Your task to perform on an android device: install app "Spotify: Music and Podcasts" Image 0: 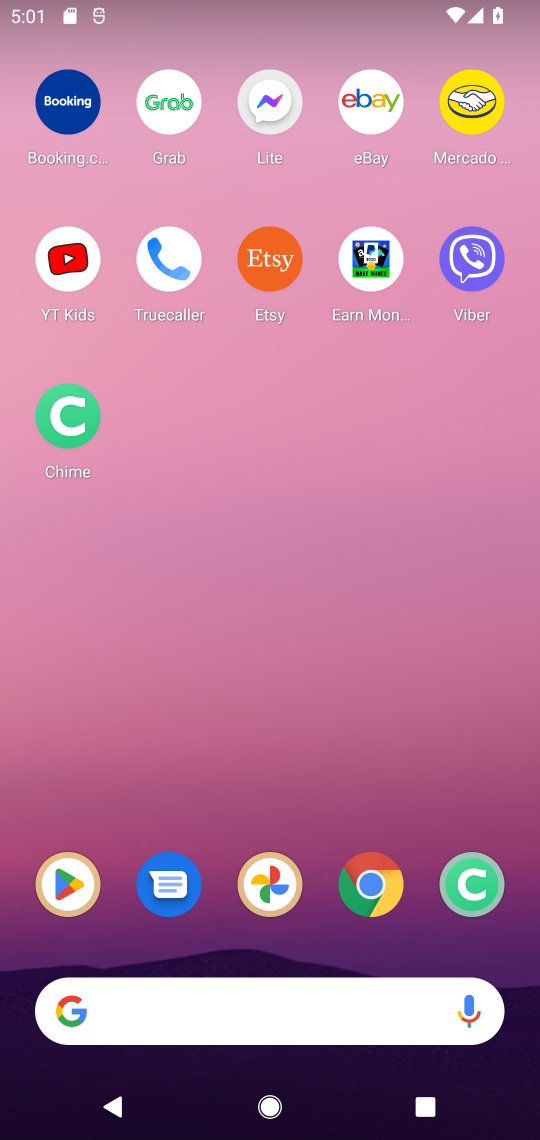
Step 0: press home button
Your task to perform on an android device: install app "Spotify: Music and Podcasts" Image 1: 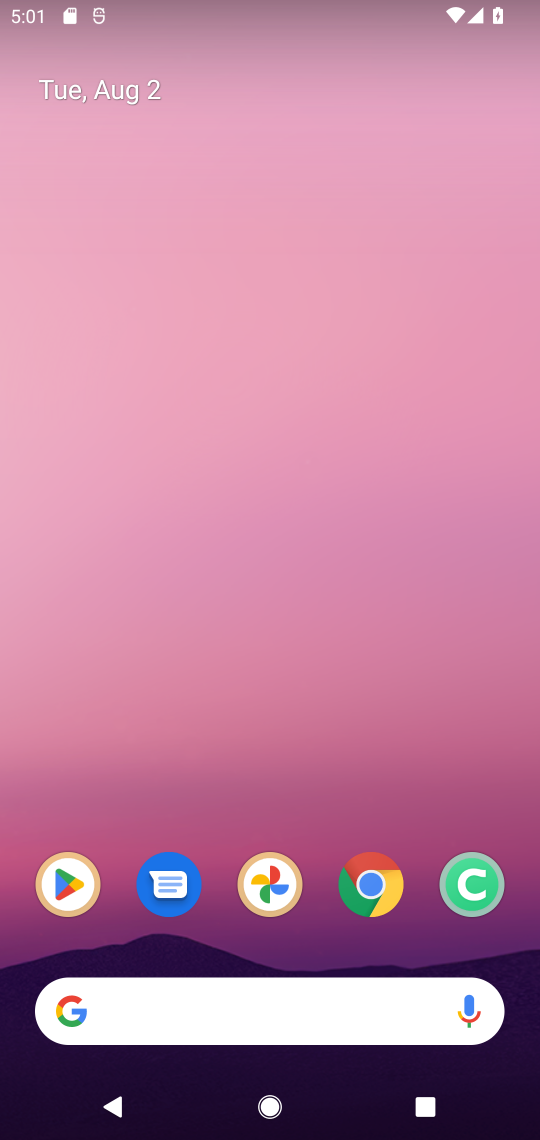
Step 1: drag from (234, 757) to (241, 93)
Your task to perform on an android device: install app "Spotify: Music and Podcasts" Image 2: 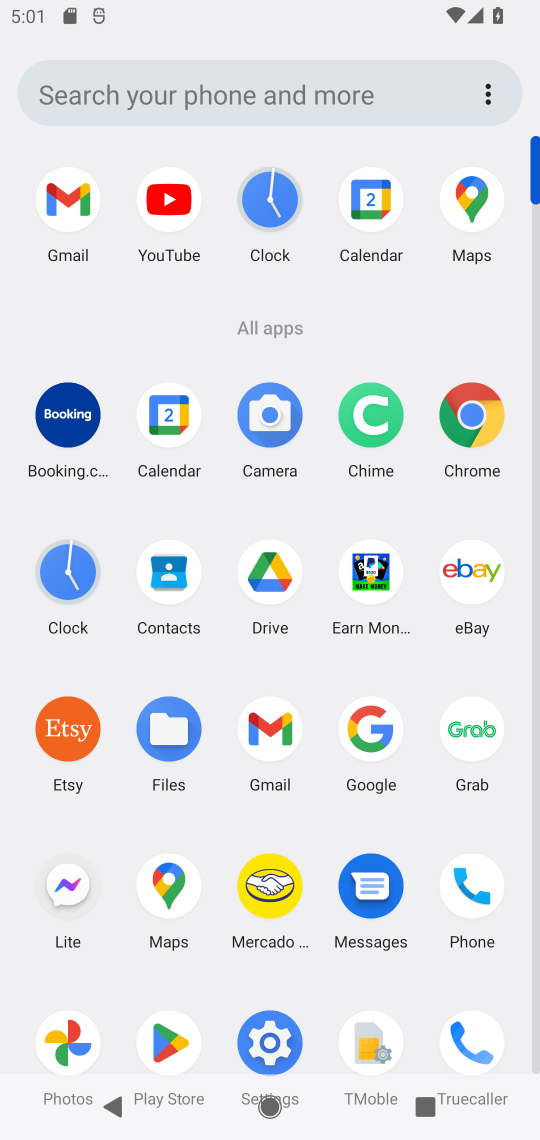
Step 2: click (177, 1042)
Your task to perform on an android device: install app "Spotify: Music and Podcasts" Image 3: 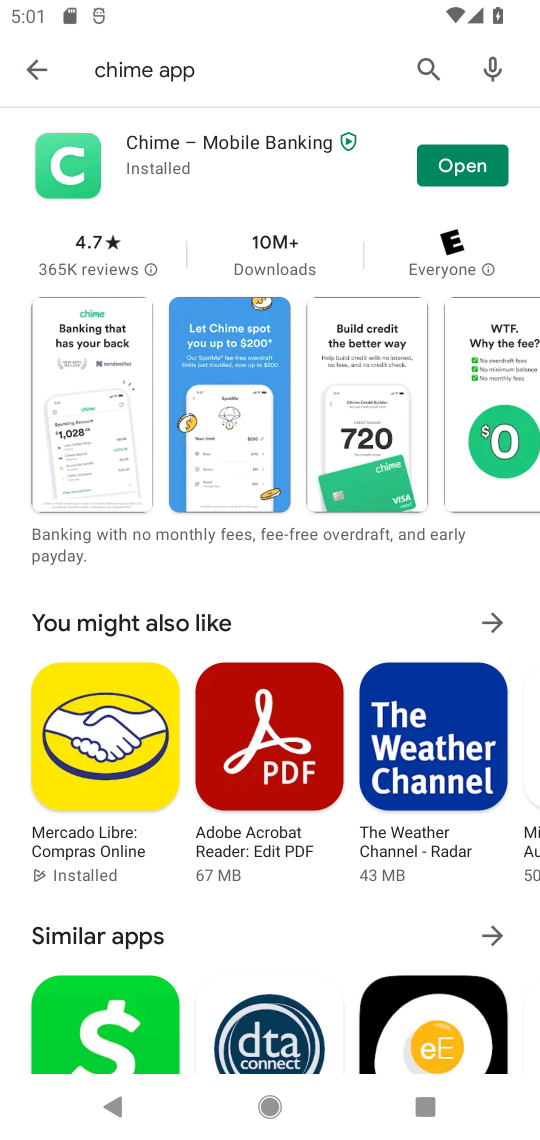
Step 3: click (35, 56)
Your task to perform on an android device: install app "Spotify: Music and Podcasts" Image 4: 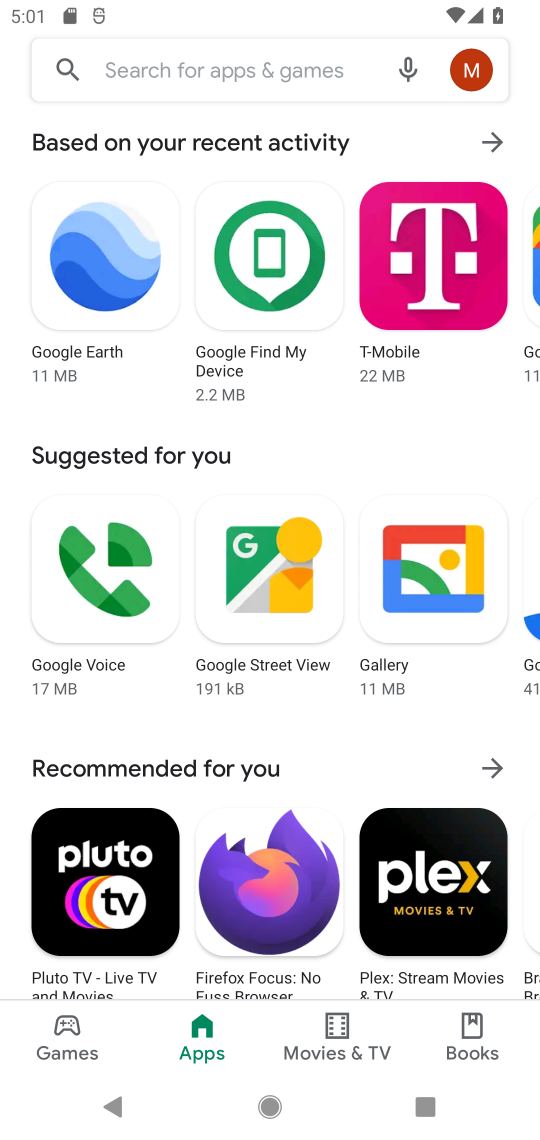
Step 4: click (149, 72)
Your task to perform on an android device: install app "Spotify: Music and Podcasts" Image 5: 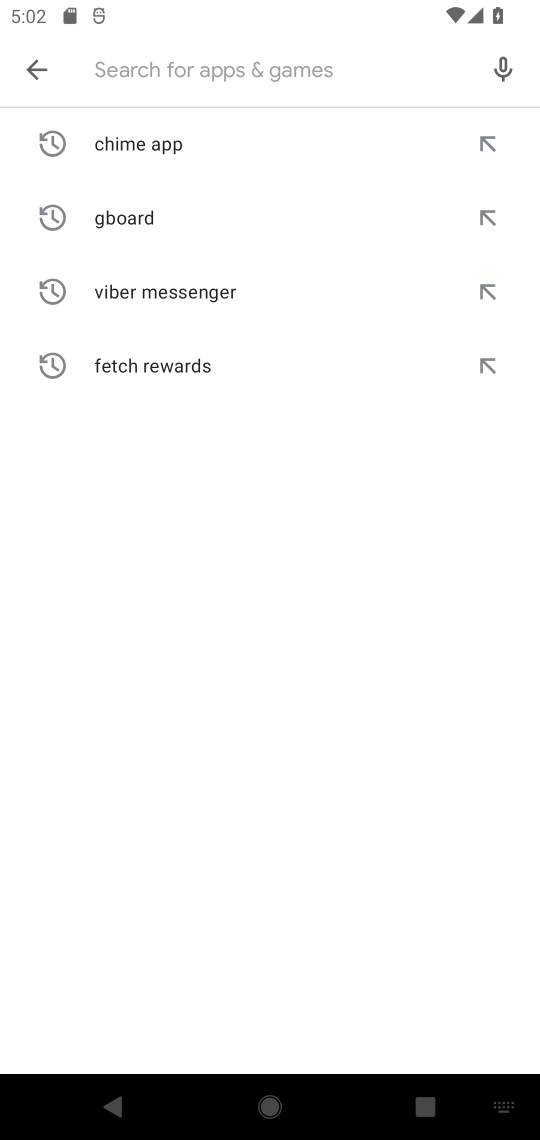
Step 5: type "Spotify: Music and Podcasts"
Your task to perform on an android device: install app "Spotify: Music and Podcasts" Image 6: 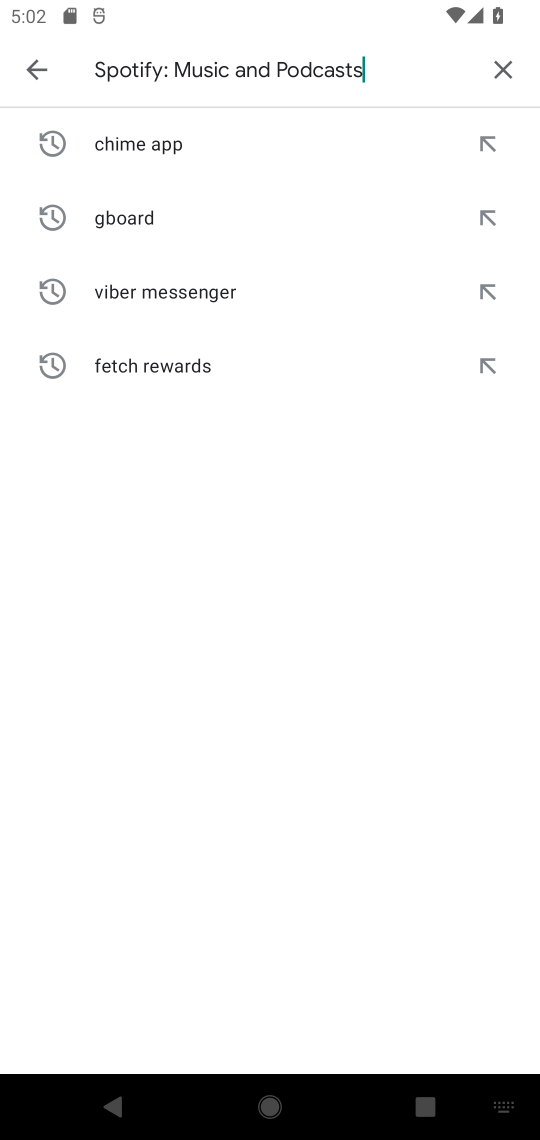
Step 6: type ""
Your task to perform on an android device: install app "Spotify: Music and Podcasts" Image 7: 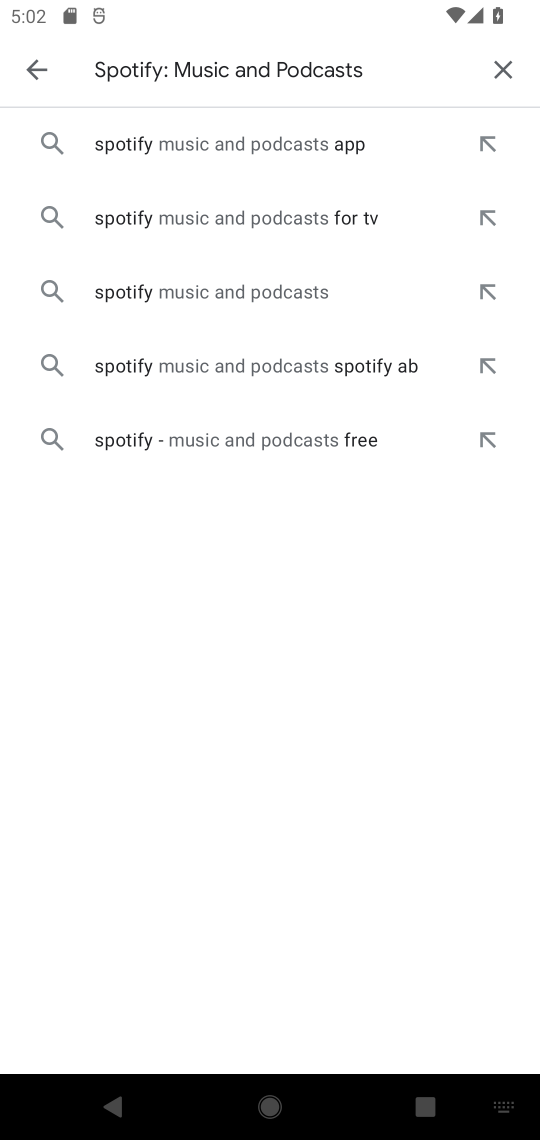
Step 7: click (125, 139)
Your task to perform on an android device: install app "Spotify: Music and Podcasts" Image 8: 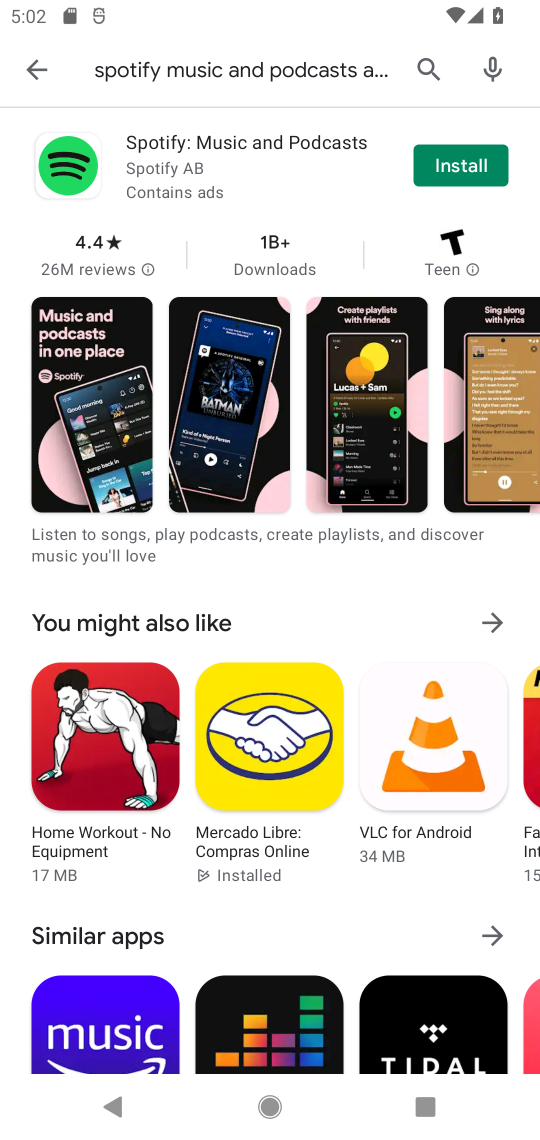
Step 8: click (439, 166)
Your task to perform on an android device: install app "Spotify: Music and Podcasts" Image 9: 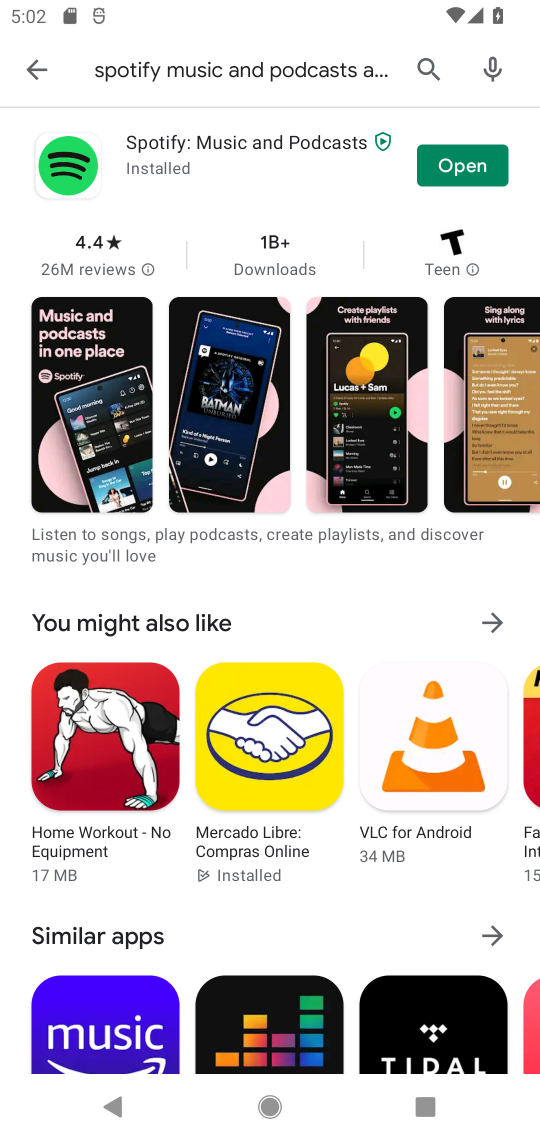
Step 9: task complete